Your task to perform on an android device: Open Yahoo.com Image 0: 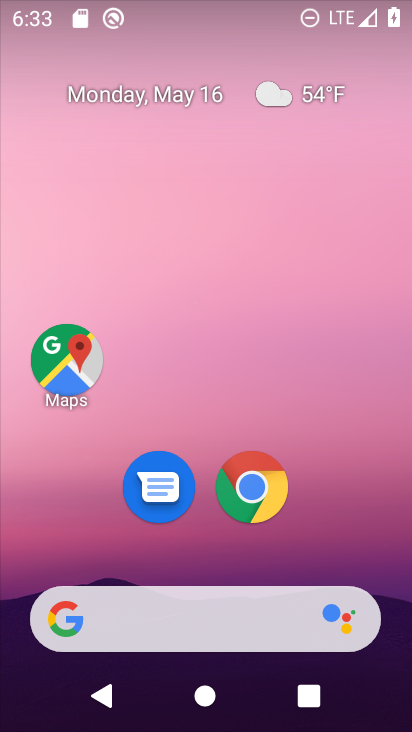
Step 0: click (261, 486)
Your task to perform on an android device: Open Yahoo.com Image 1: 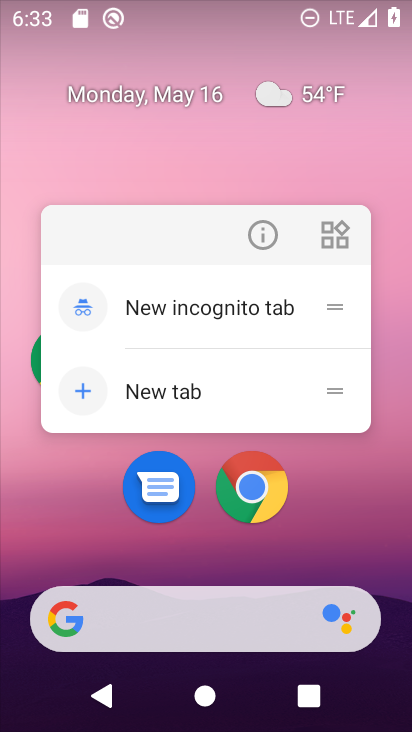
Step 1: click (254, 484)
Your task to perform on an android device: Open Yahoo.com Image 2: 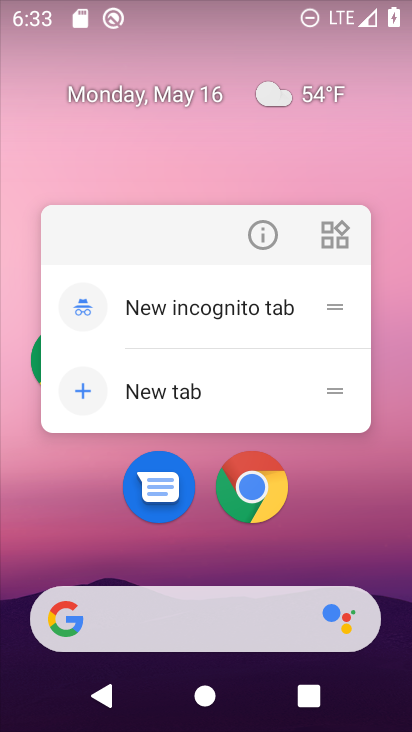
Step 2: click (256, 494)
Your task to perform on an android device: Open Yahoo.com Image 3: 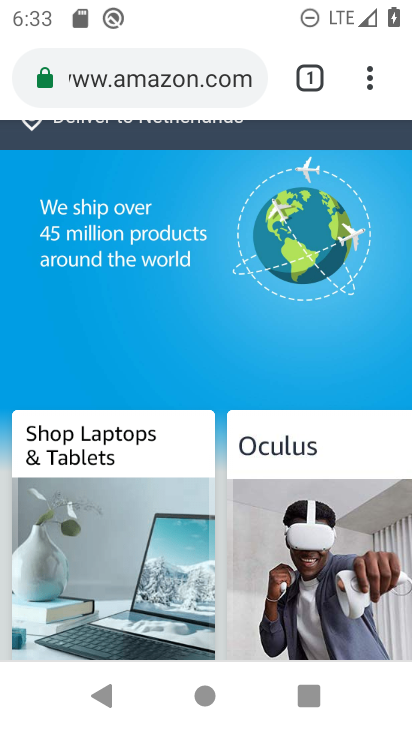
Step 3: click (303, 73)
Your task to perform on an android device: Open Yahoo.com Image 4: 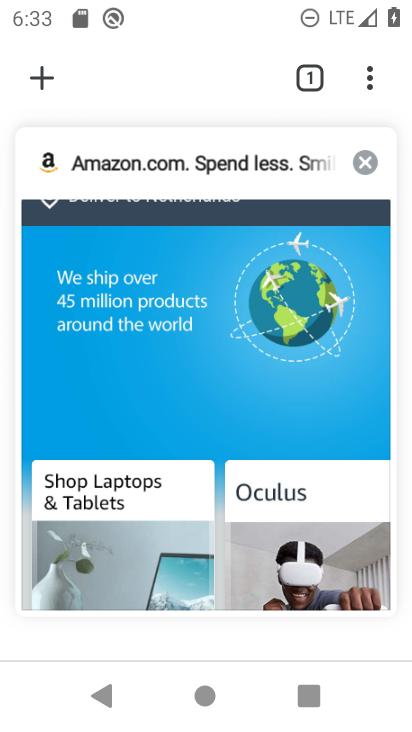
Step 4: click (374, 157)
Your task to perform on an android device: Open Yahoo.com Image 5: 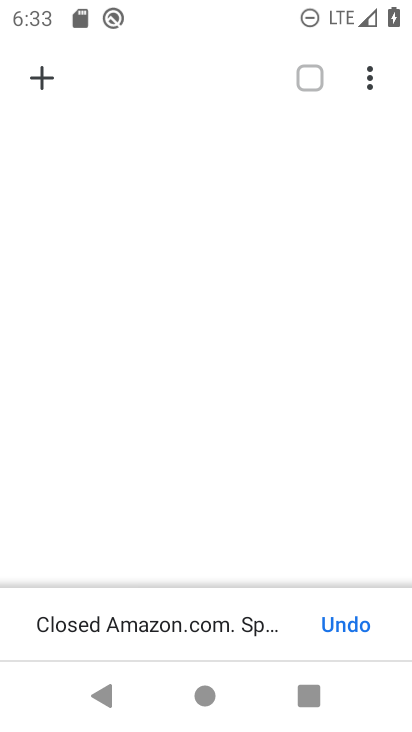
Step 5: click (40, 74)
Your task to perform on an android device: Open Yahoo.com Image 6: 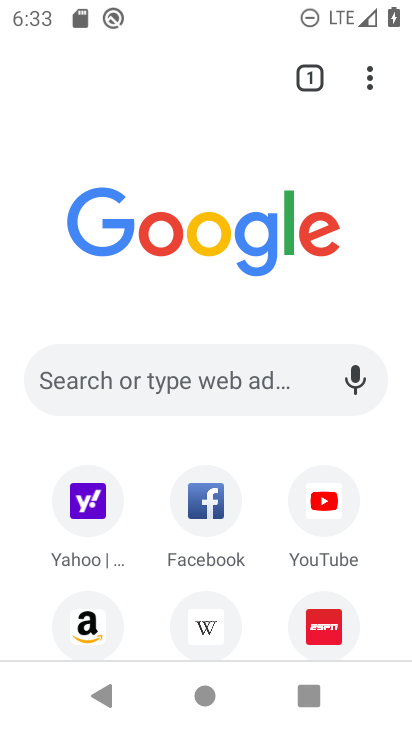
Step 6: click (91, 501)
Your task to perform on an android device: Open Yahoo.com Image 7: 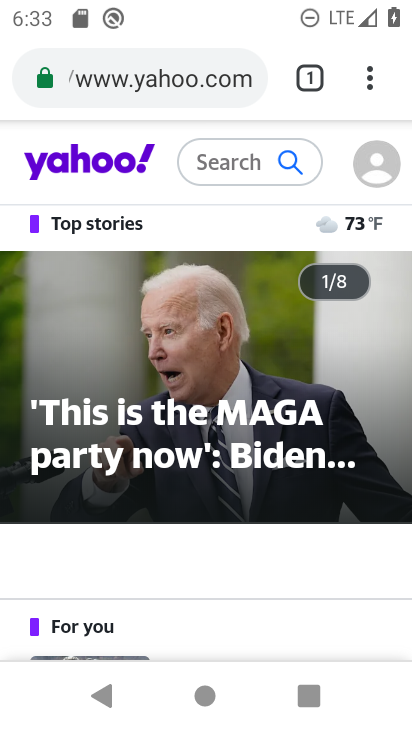
Step 7: task complete